Your task to perform on an android device: Is it going to rain this weekend? Image 0: 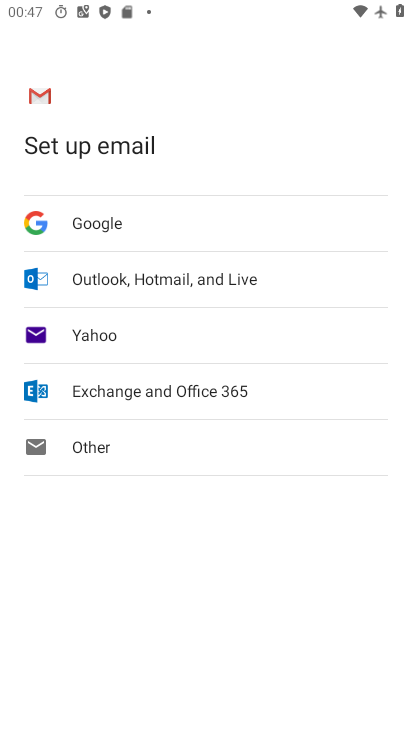
Step 0: press home button
Your task to perform on an android device: Is it going to rain this weekend? Image 1: 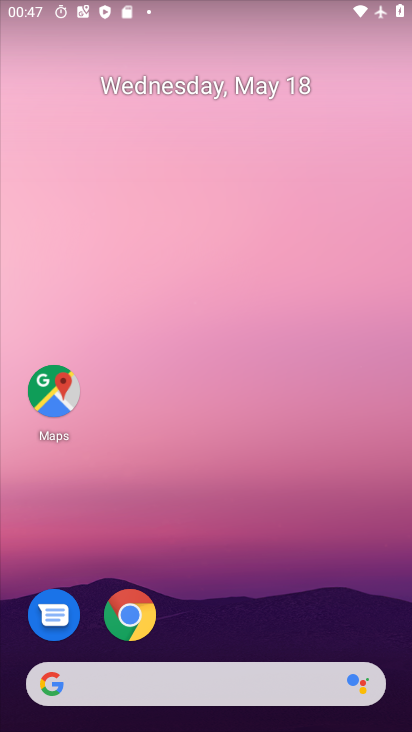
Step 1: drag from (217, 592) to (224, 251)
Your task to perform on an android device: Is it going to rain this weekend? Image 2: 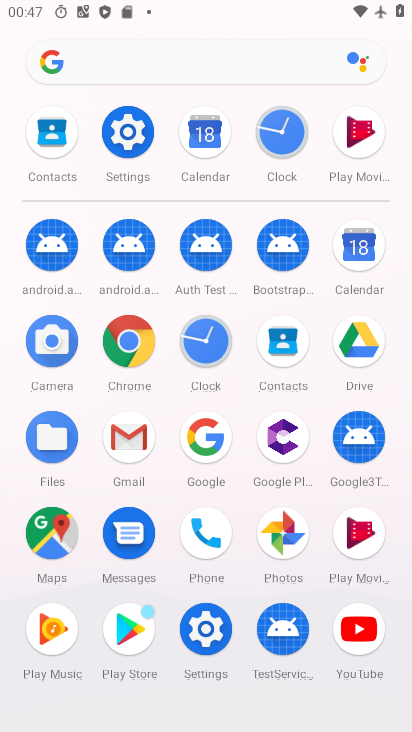
Step 2: click (200, 438)
Your task to perform on an android device: Is it going to rain this weekend? Image 3: 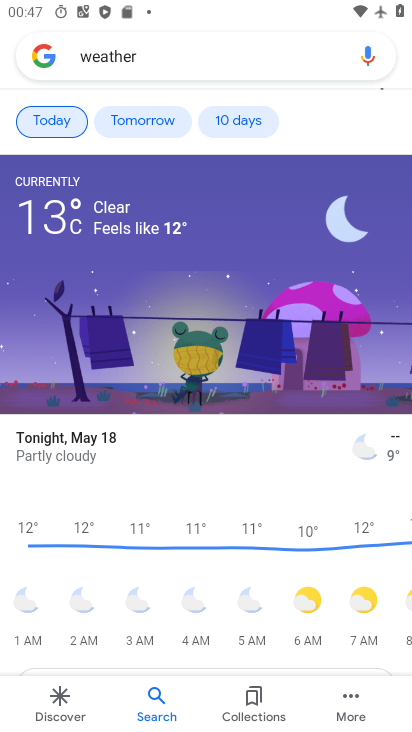
Step 3: click (223, 126)
Your task to perform on an android device: Is it going to rain this weekend? Image 4: 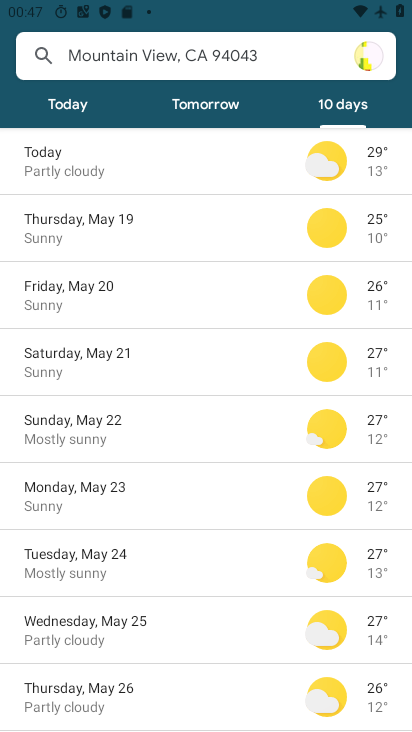
Step 4: task complete